Your task to perform on an android device: Go to Maps Image 0: 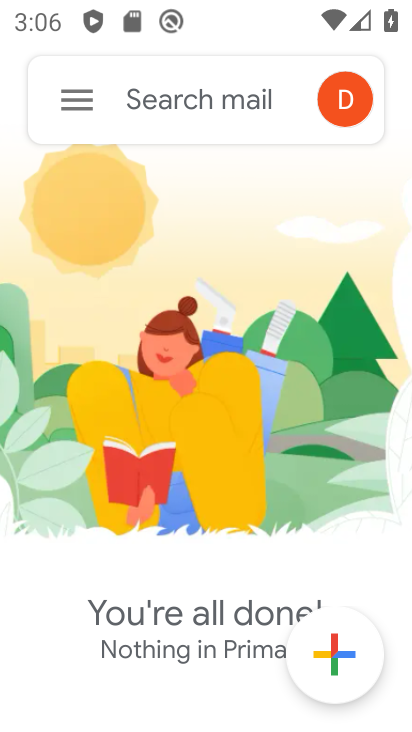
Step 0: task complete